Your task to perform on an android device: show emergency info Image 0: 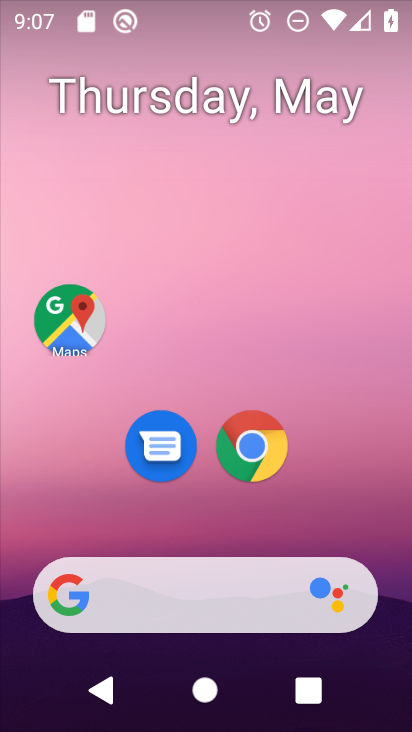
Step 0: drag from (372, 529) to (374, 156)
Your task to perform on an android device: show emergency info Image 1: 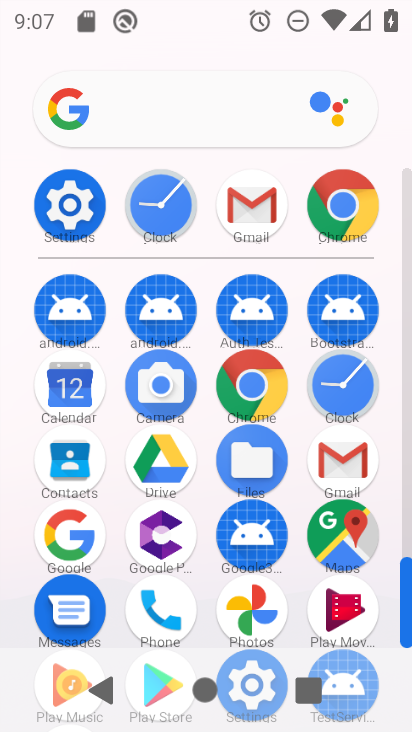
Step 1: drag from (290, 570) to (298, 257)
Your task to perform on an android device: show emergency info Image 2: 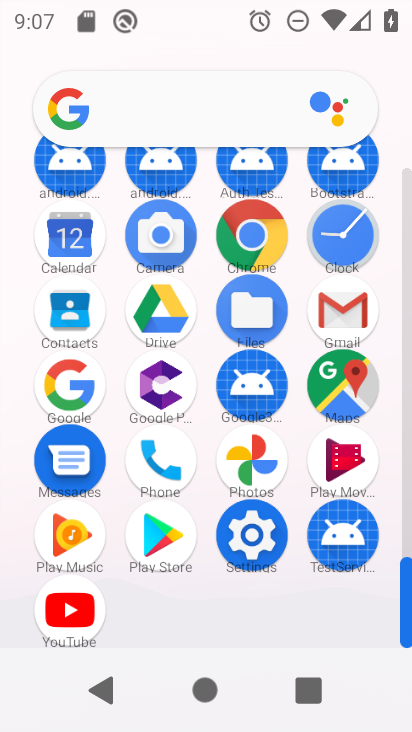
Step 2: click (248, 560)
Your task to perform on an android device: show emergency info Image 3: 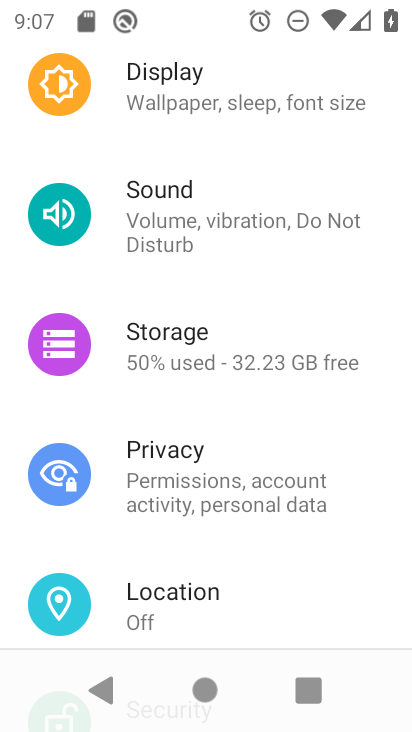
Step 3: drag from (282, 616) to (372, 217)
Your task to perform on an android device: show emergency info Image 4: 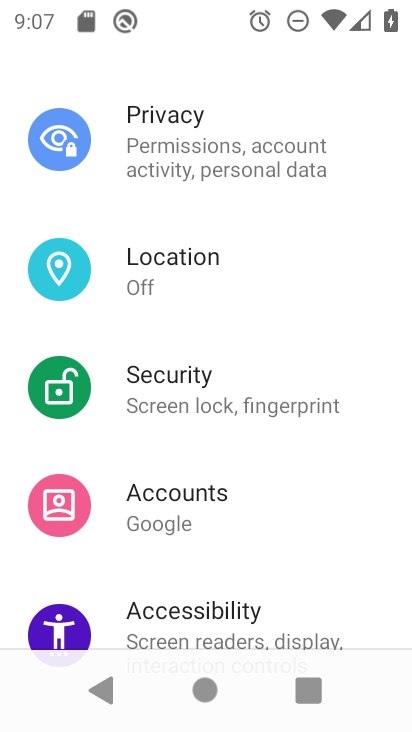
Step 4: drag from (312, 587) to (309, 204)
Your task to perform on an android device: show emergency info Image 5: 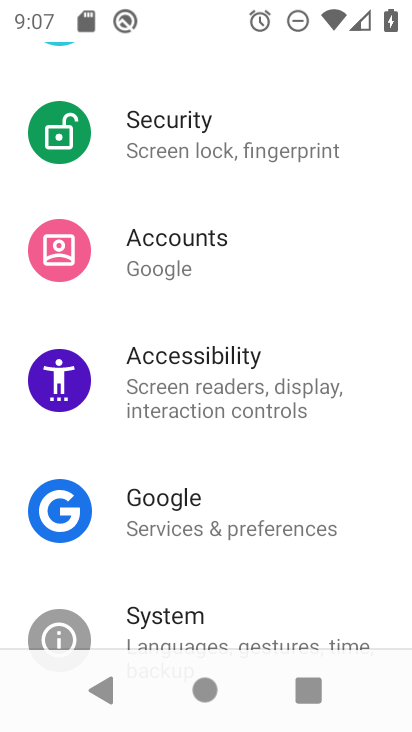
Step 5: drag from (289, 500) to (320, 273)
Your task to perform on an android device: show emergency info Image 6: 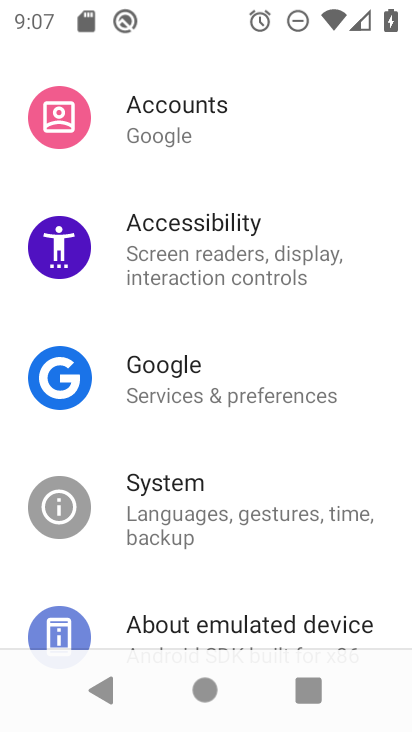
Step 6: drag from (327, 566) to (340, 285)
Your task to perform on an android device: show emergency info Image 7: 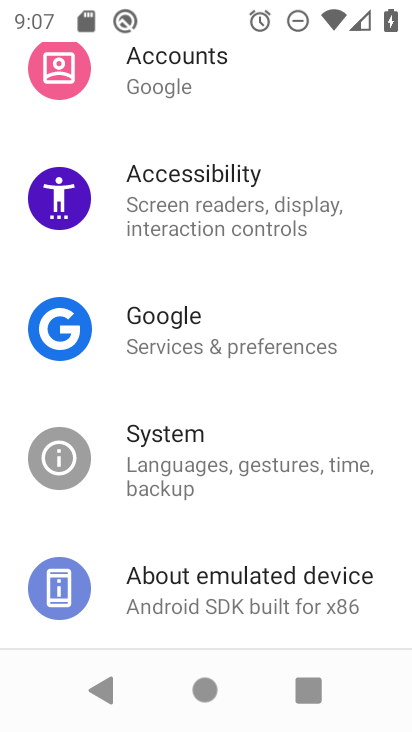
Step 7: click (248, 620)
Your task to perform on an android device: show emergency info Image 8: 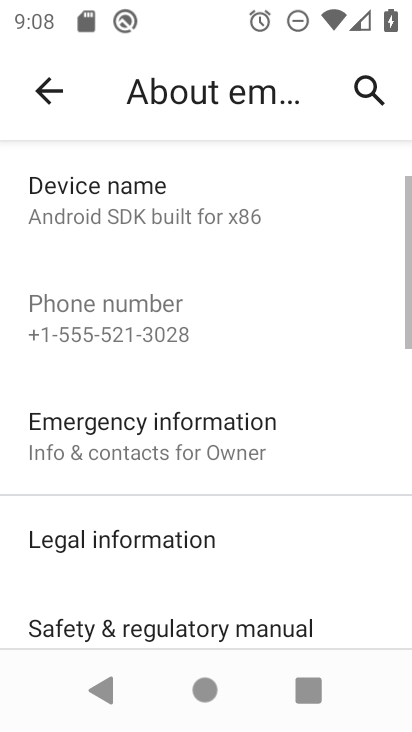
Step 8: click (243, 437)
Your task to perform on an android device: show emergency info Image 9: 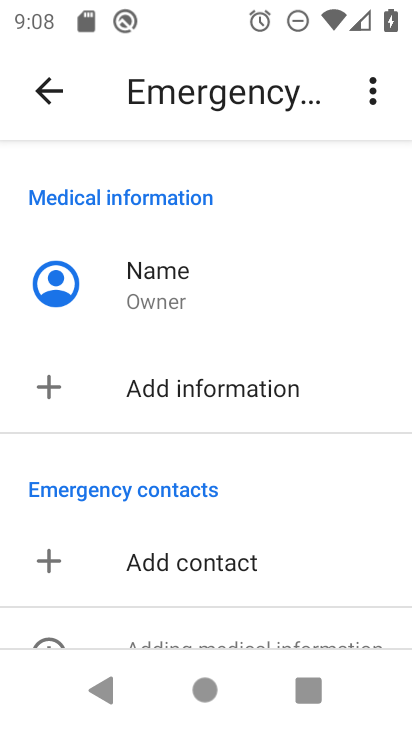
Step 9: task complete